Your task to perform on an android device: open wifi settings Image 0: 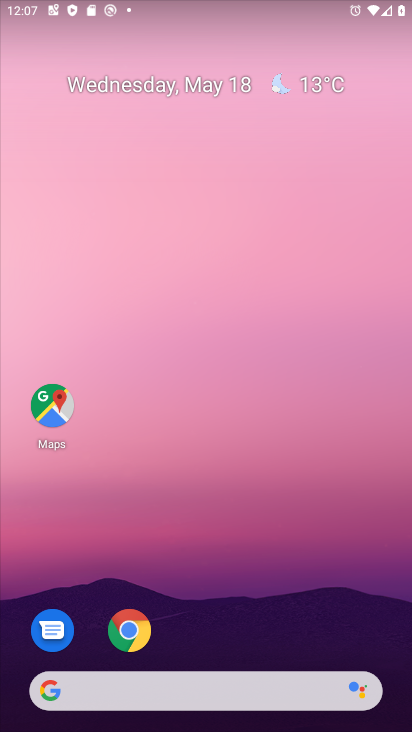
Step 0: drag from (223, 720) to (221, 318)
Your task to perform on an android device: open wifi settings Image 1: 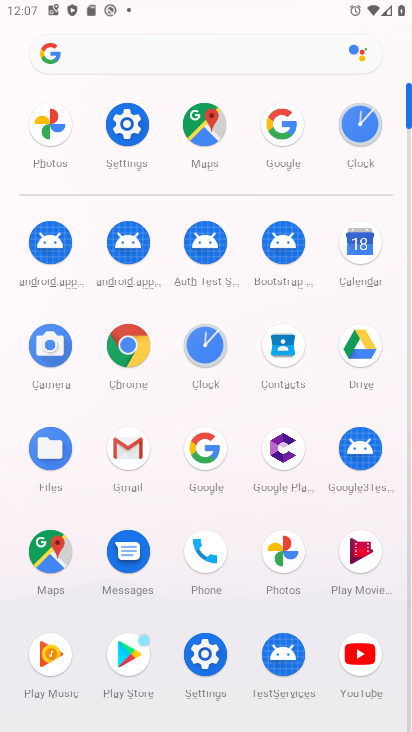
Step 1: click (129, 131)
Your task to perform on an android device: open wifi settings Image 2: 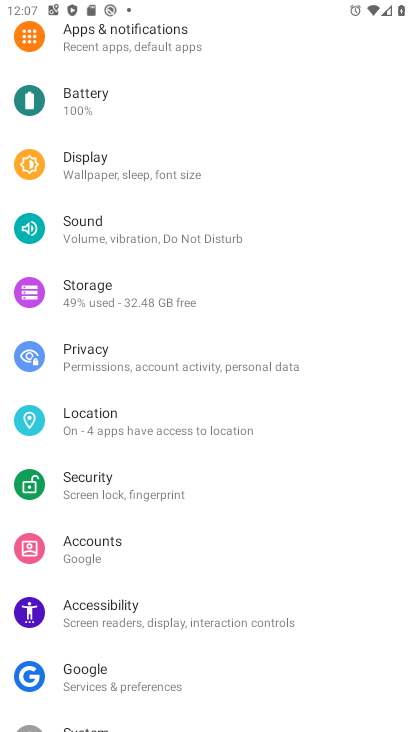
Step 2: drag from (151, 98) to (180, 539)
Your task to perform on an android device: open wifi settings Image 3: 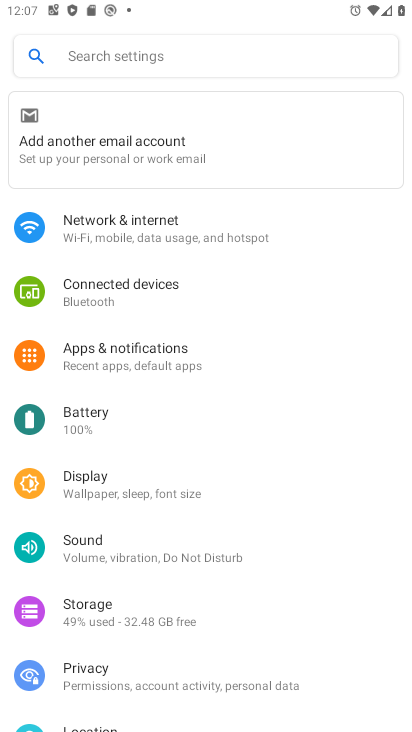
Step 3: click (148, 226)
Your task to perform on an android device: open wifi settings Image 4: 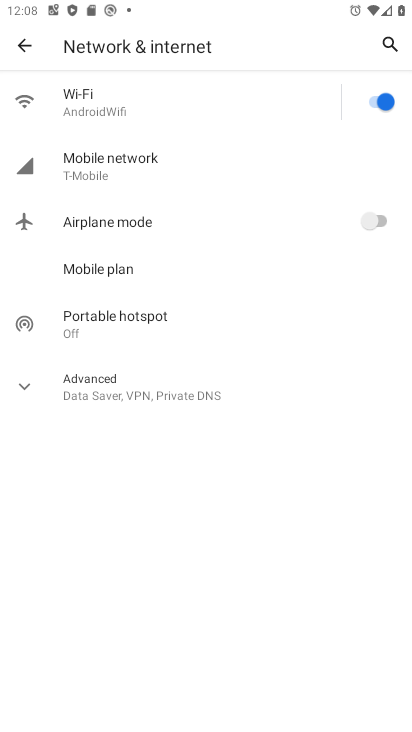
Step 4: click (77, 95)
Your task to perform on an android device: open wifi settings Image 5: 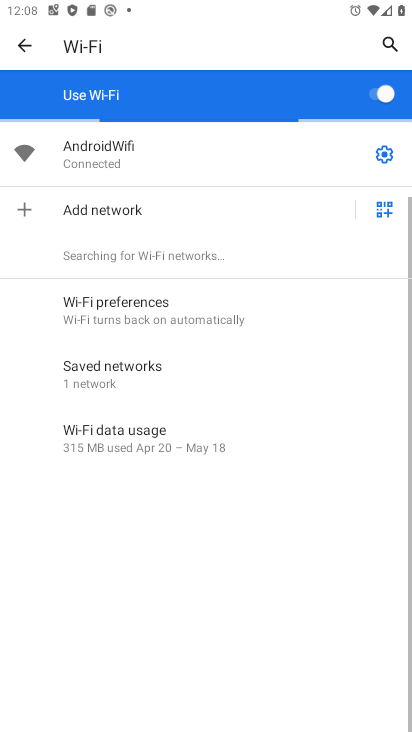
Step 5: task complete